Your task to perform on an android device: Search for "usb-c" on ebay.com, select the first entry, and add it to the cart. Image 0: 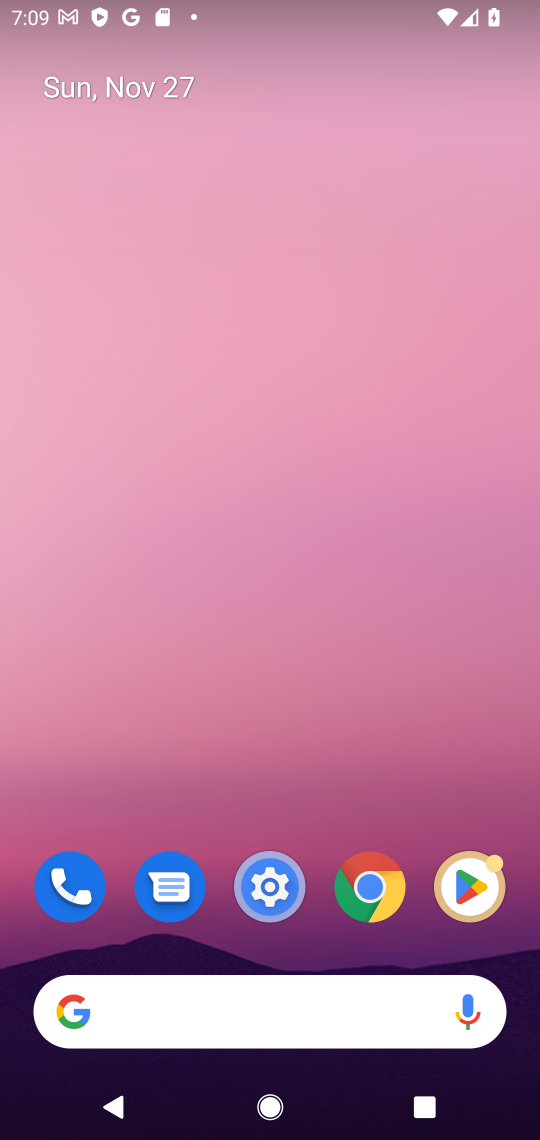
Step 0: click (205, 1048)
Your task to perform on an android device: Search for "usb-c" on ebay.com, select the first entry, and add it to the cart. Image 1: 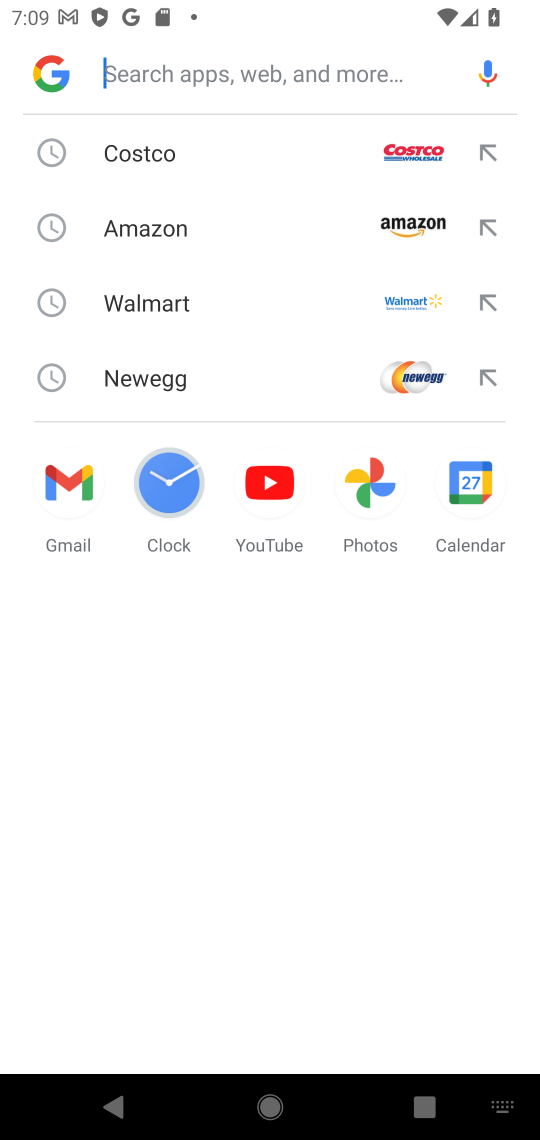
Step 1: click (282, 990)
Your task to perform on an android device: Search for "usb-c" on ebay.com, select the first entry, and add it to the cart. Image 2: 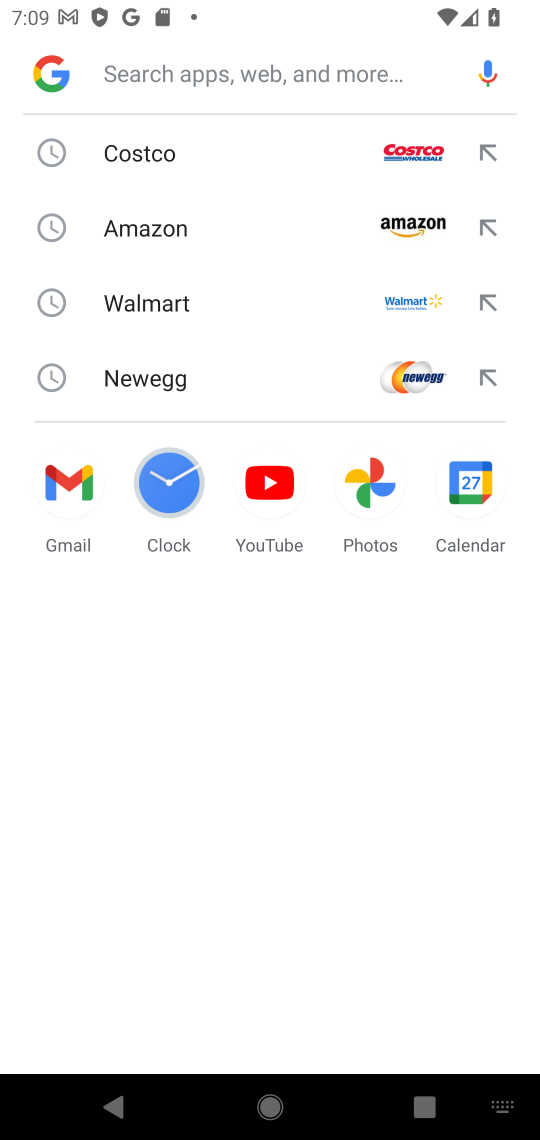
Step 2: type "ebay"
Your task to perform on an android device: Search for "usb-c" on ebay.com, select the first entry, and add it to the cart. Image 3: 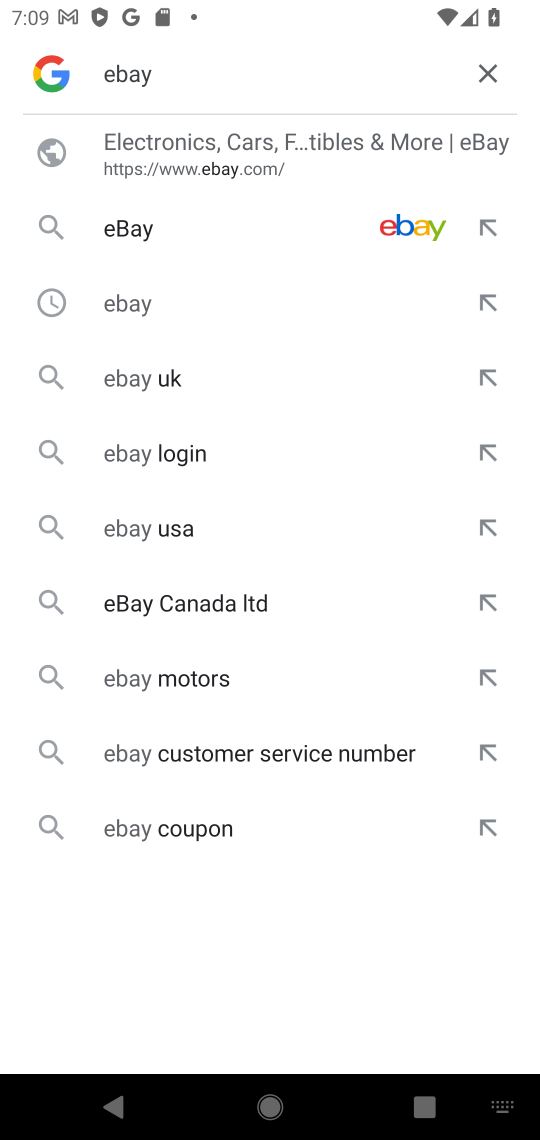
Step 3: click (196, 252)
Your task to perform on an android device: Search for "usb-c" on ebay.com, select the first entry, and add it to the cart. Image 4: 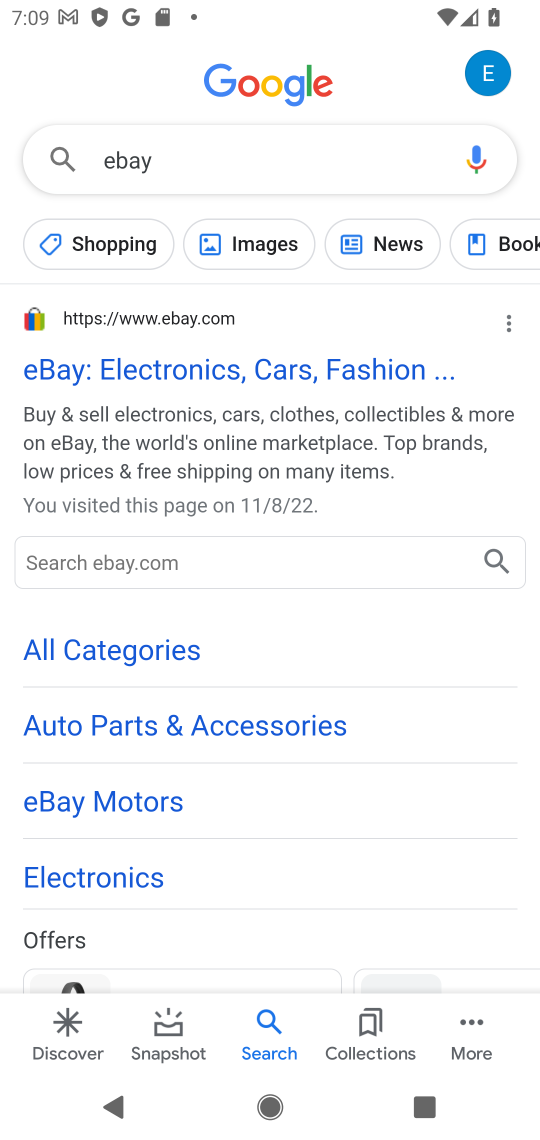
Step 4: click (224, 365)
Your task to perform on an android device: Search for "usb-c" on ebay.com, select the first entry, and add it to the cart. Image 5: 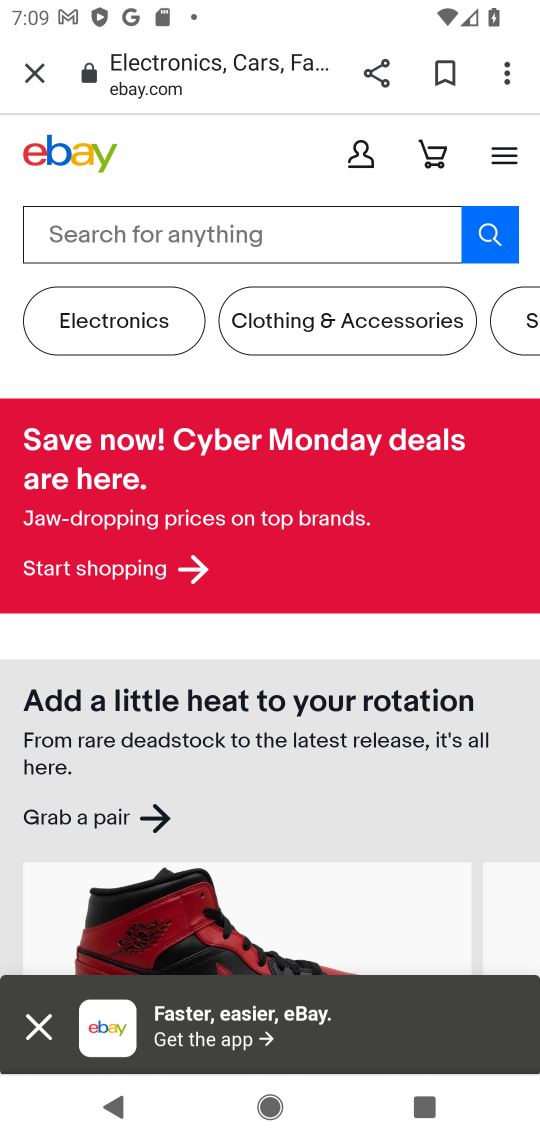
Step 5: drag from (295, 789) to (303, 441)
Your task to perform on an android device: Search for "usb-c" on ebay.com, select the first entry, and add it to the cart. Image 6: 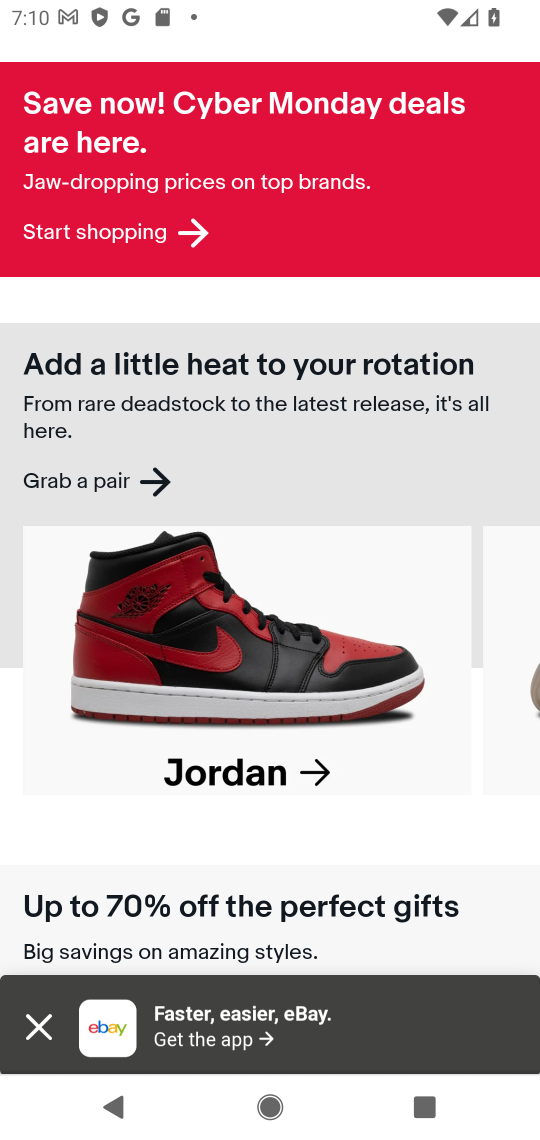
Step 6: click (55, 1028)
Your task to perform on an android device: Search for "usb-c" on ebay.com, select the first entry, and add it to the cart. Image 7: 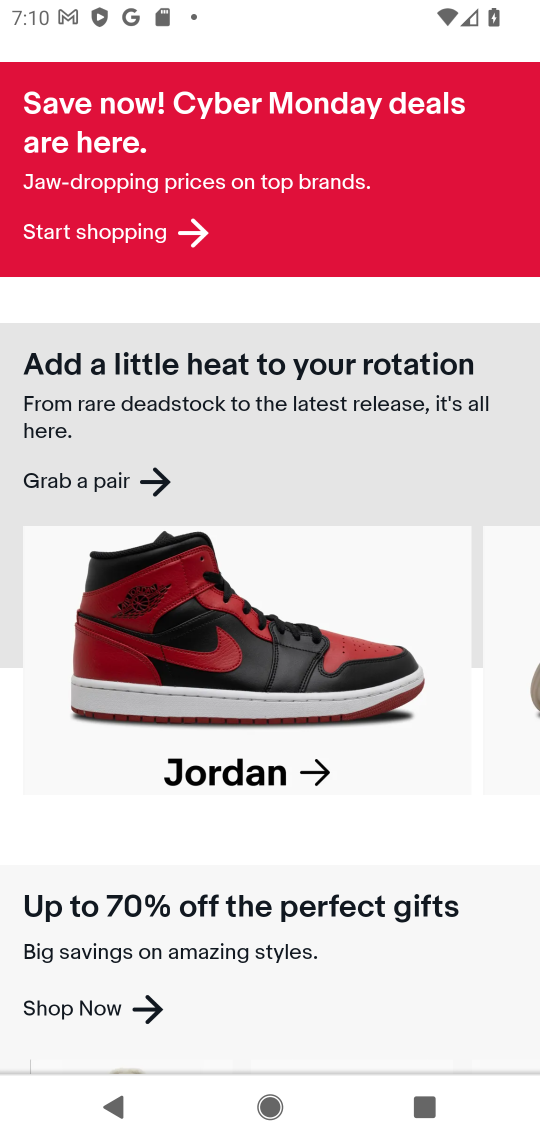
Step 7: drag from (347, 858) to (305, 562)
Your task to perform on an android device: Search for "usb-c" on ebay.com, select the first entry, and add it to the cart. Image 8: 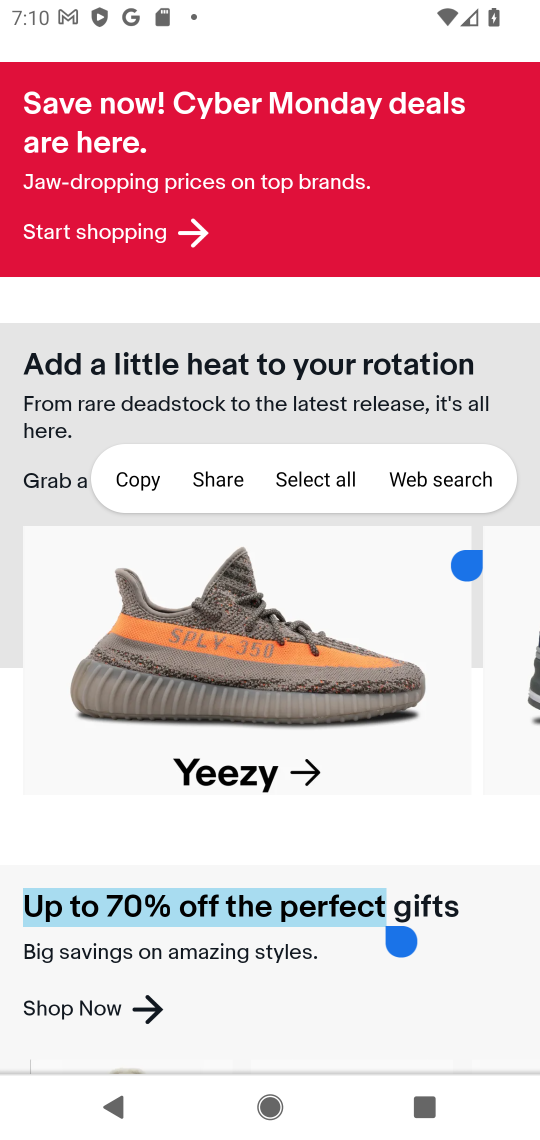
Step 8: click (418, 978)
Your task to perform on an android device: Search for "usb-c" on ebay.com, select the first entry, and add it to the cart. Image 9: 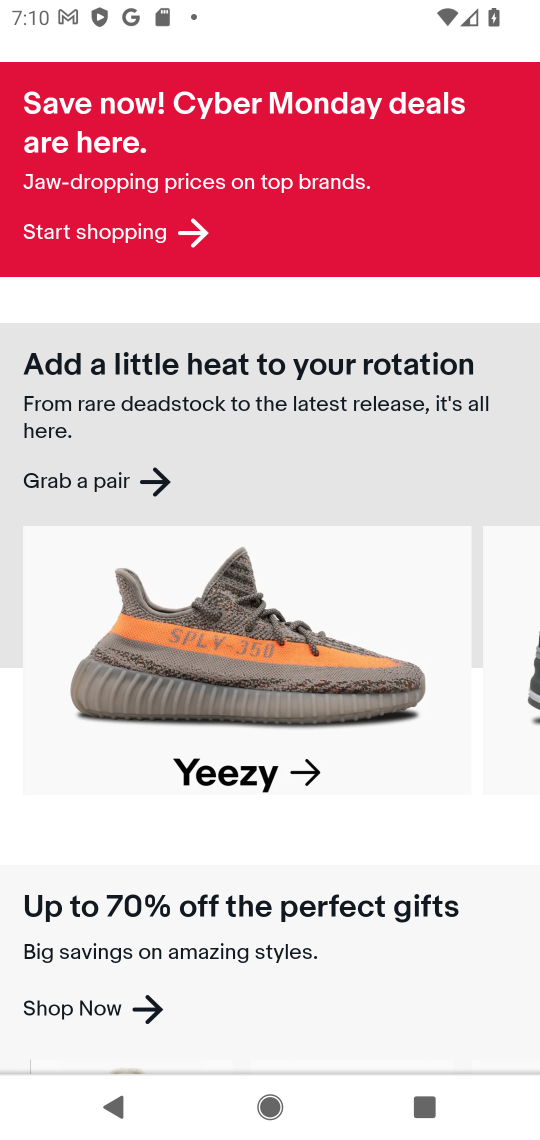
Step 9: task complete